Your task to perform on an android device: turn off notifications settings in the gmail app Image 0: 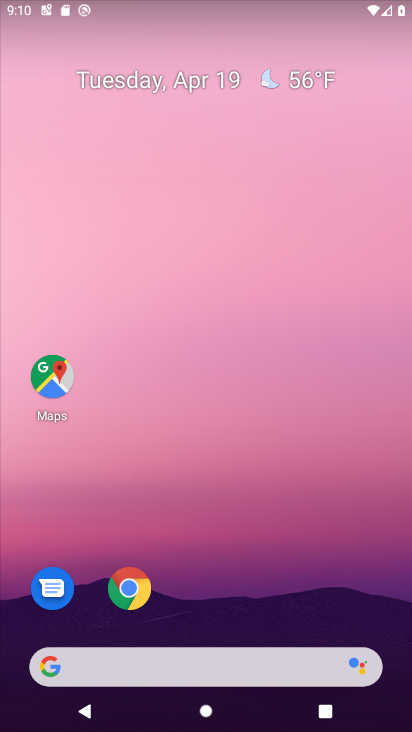
Step 0: drag from (220, 570) to (222, 38)
Your task to perform on an android device: turn off notifications settings in the gmail app Image 1: 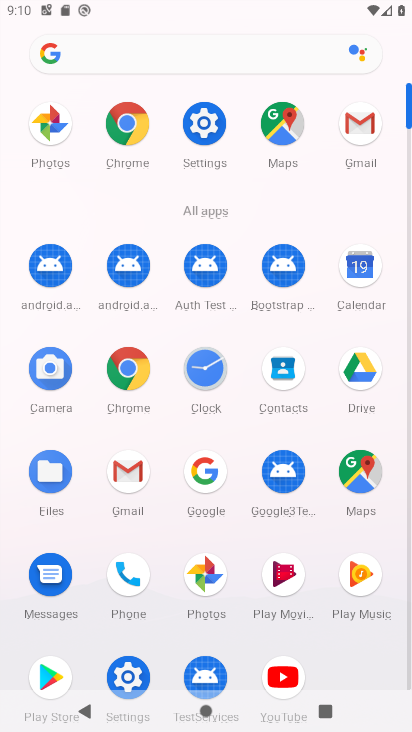
Step 1: click (359, 114)
Your task to perform on an android device: turn off notifications settings in the gmail app Image 2: 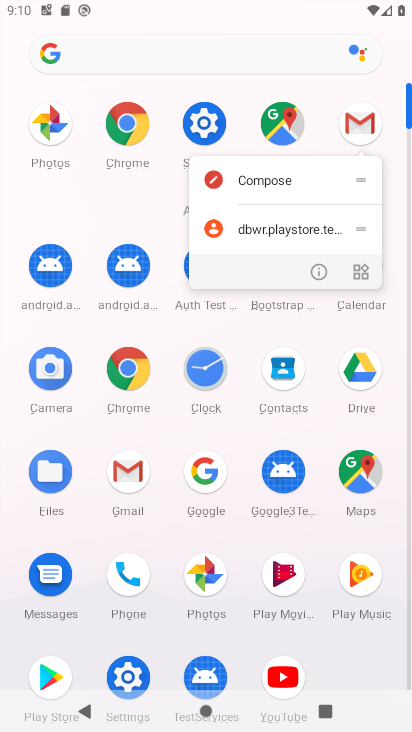
Step 2: click (356, 113)
Your task to perform on an android device: turn off notifications settings in the gmail app Image 3: 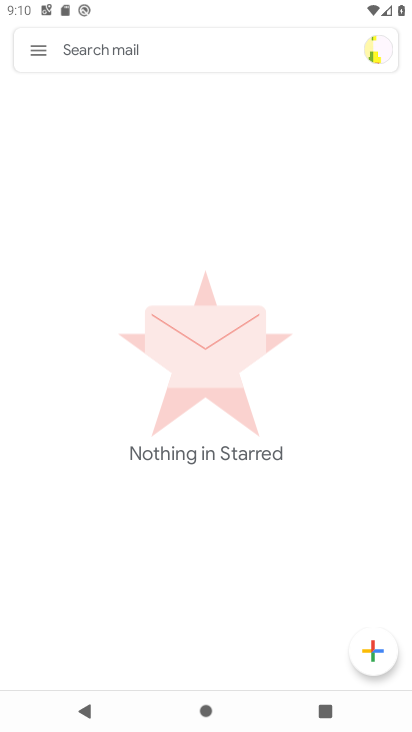
Step 3: click (37, 47)
Your task to perform on an android device: turn off notifications settings in the gmail app Image 4: 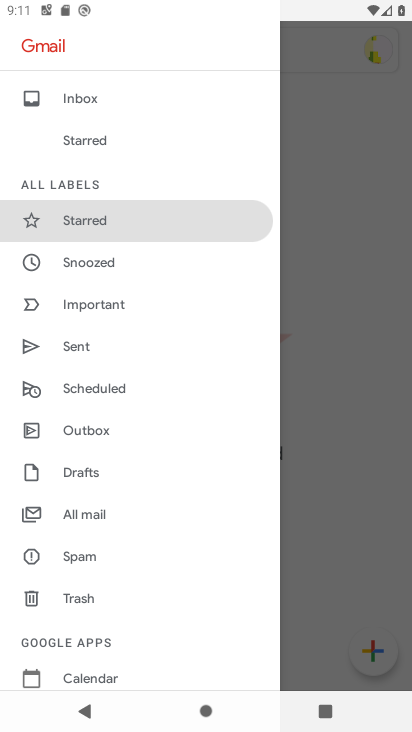
Step 4: drag from (130, 638) to (140, 150)
Your task to perform on an android device: turn off notifications settings in the gmail app Image 5: 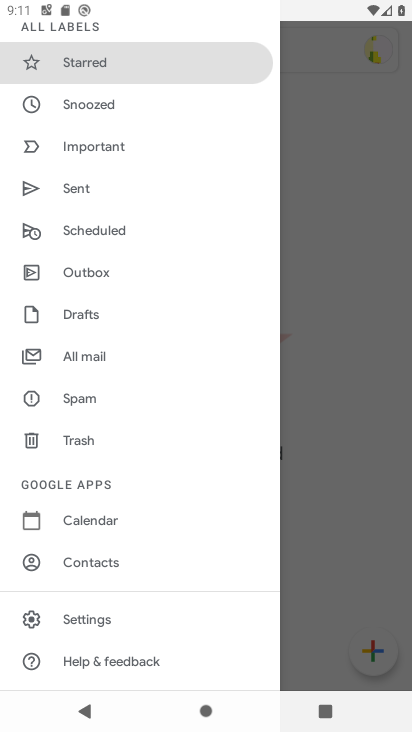
Step 5: click (120, 613)
Your task to perform on an android device: turn off notifications settings in the gmail app Image 6: 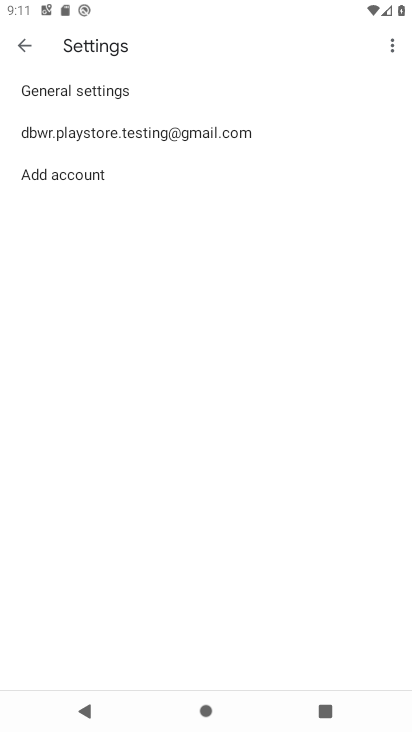
Step 6: click (135, 88)
Your task to perform on an android device: turn off notifications settings in the gmail app Image 7: 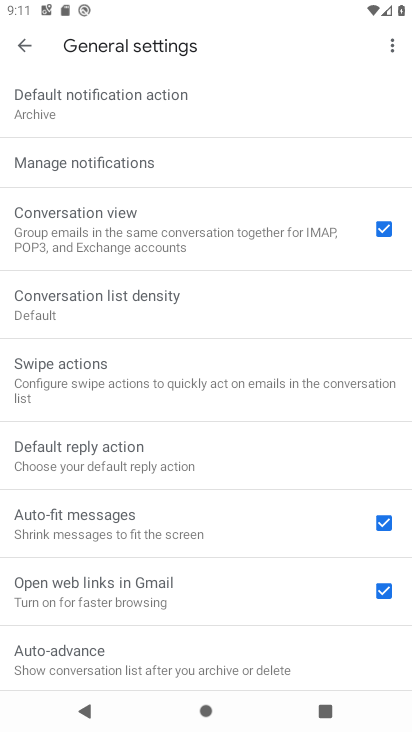
Step 7: click (168, 161)
Your task to perform on an android device: turn off notifications settings in the gmail app Image 8: 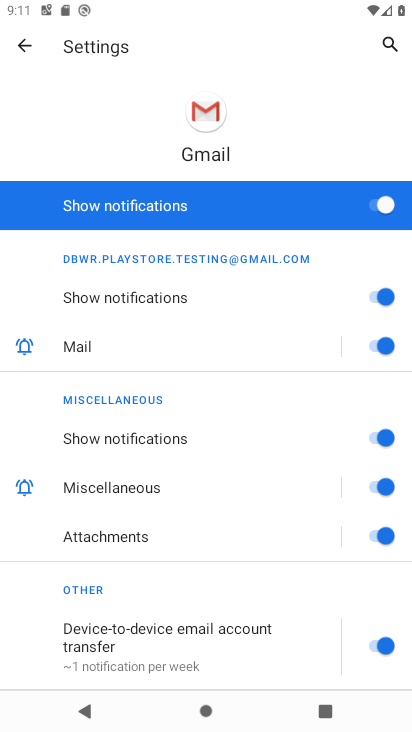
Step 8: click (375, 199)
Your task to perform on an android device: turn off notifications settings in the gmail app Image 9: 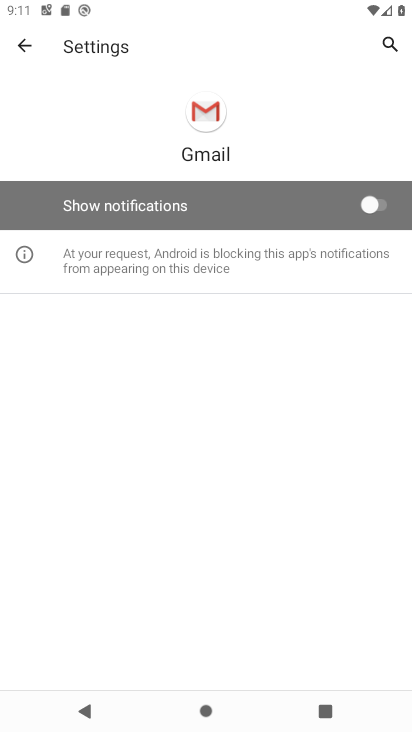
Step 9: task complete